Your task to perform on an android device: Open the Play Movies app and select the watchlist tab. Image 0: 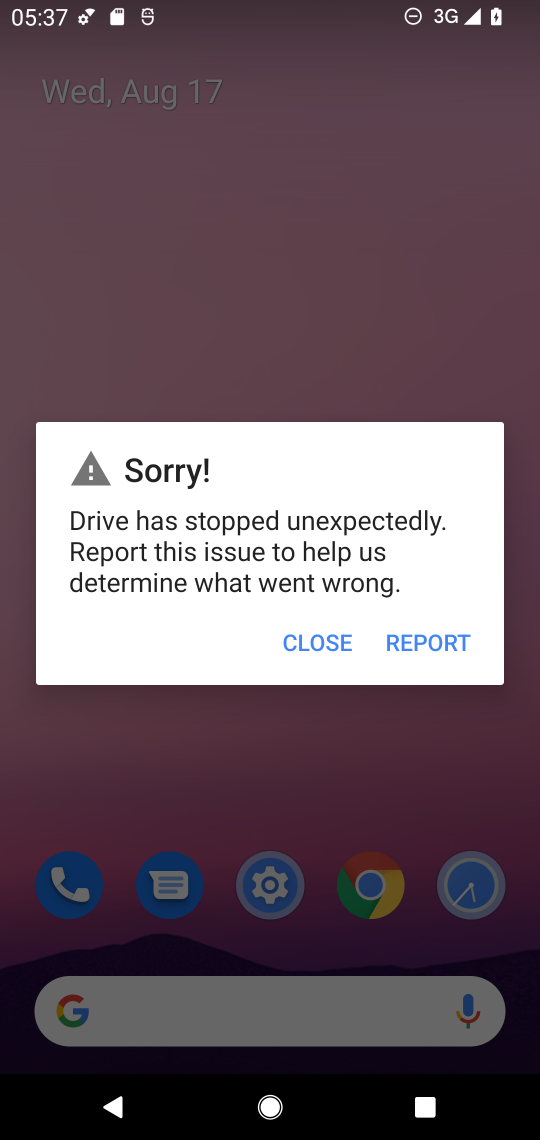
Step 0: press home button
Your task to perform on an android device: Open the Play Movies app and select the watchlist tab. Image 1: 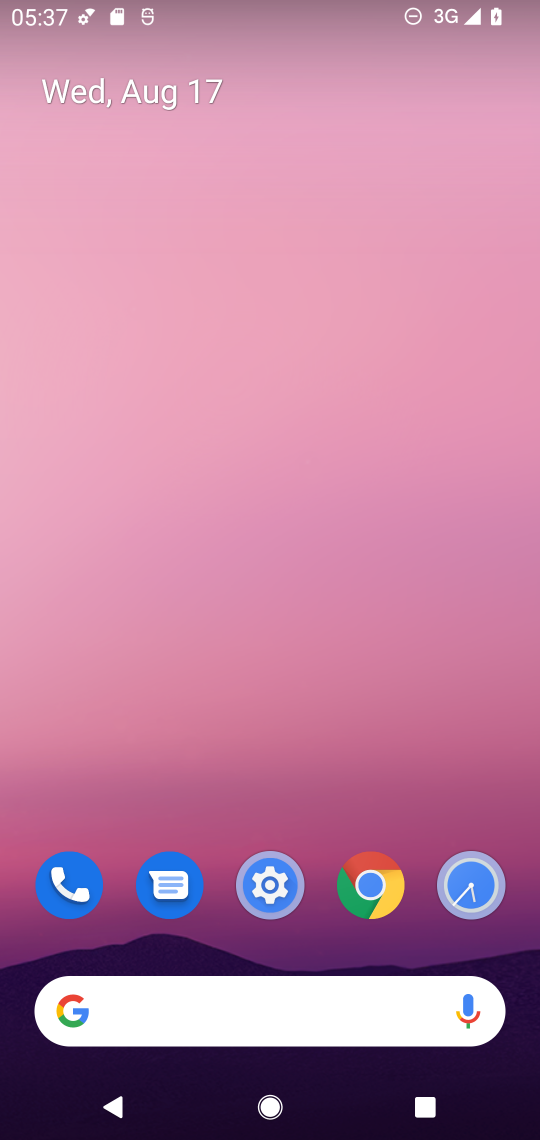
Step 1: drag from (337, 761) to (396, 14)
Your task to perform on an android device: Open the Play Movies app and select the watchlist tab. Image 2: 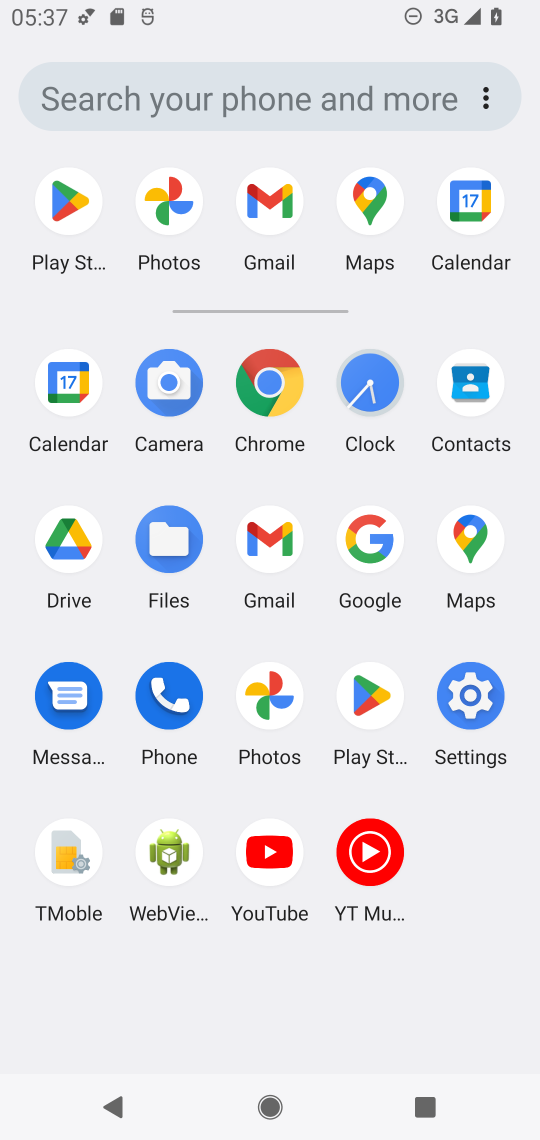
Step 2: click (357, 689)
Your task to perform on an android device: Open the Play Movies app and select the watchlist tab. Image 3: 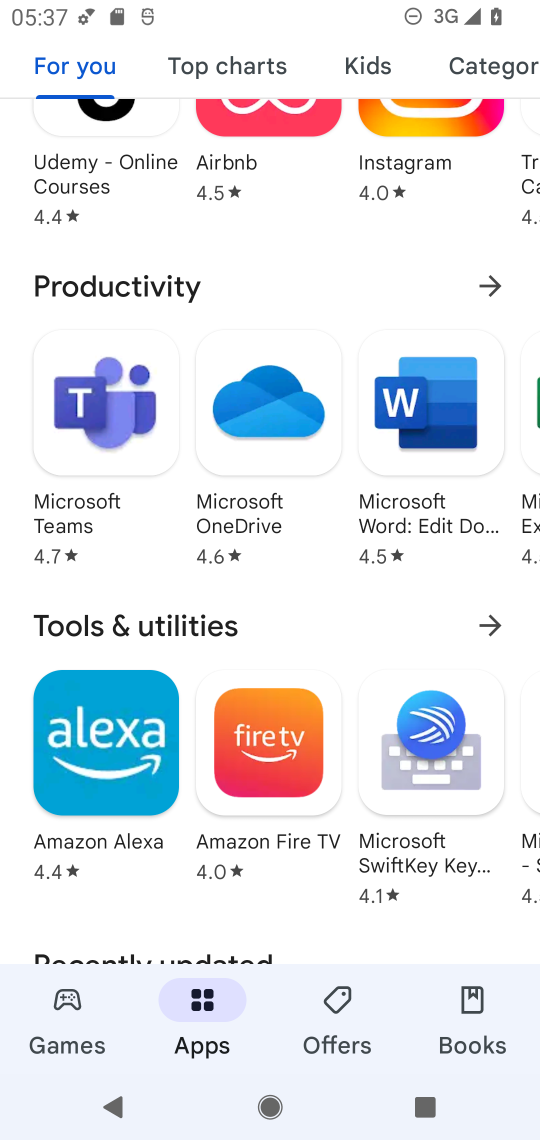
Step 3: drag from (306, 237) to (382, 1023)
Your task to perform on an android device: Open the Play Movies app and select the watchlist tab. Image 4: 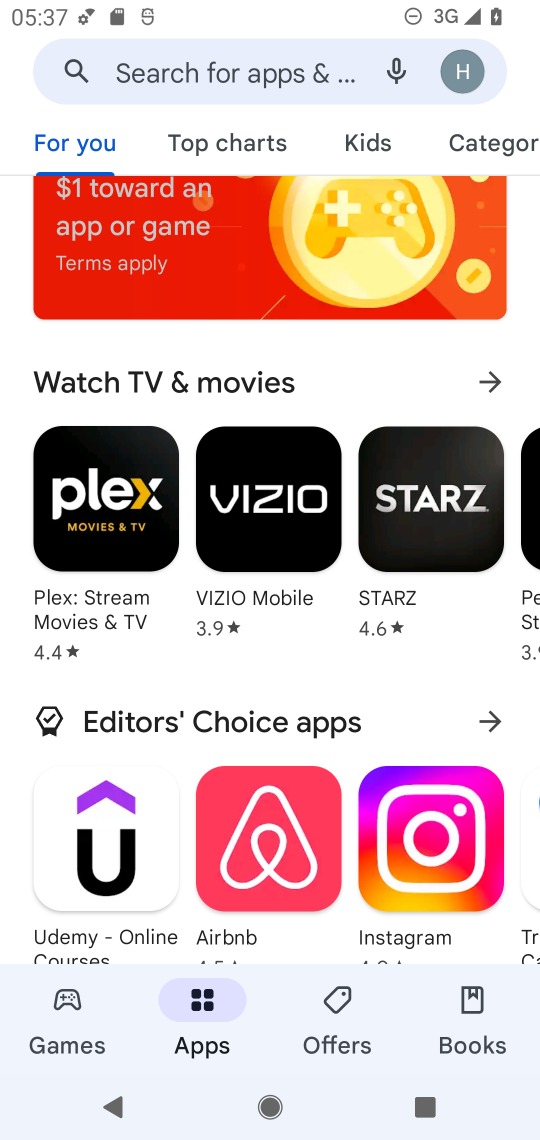
Step 4: click (248, 61)
Your task to perform on an android device: Open the Play Movies app and select the watchlist tab. Image 5: 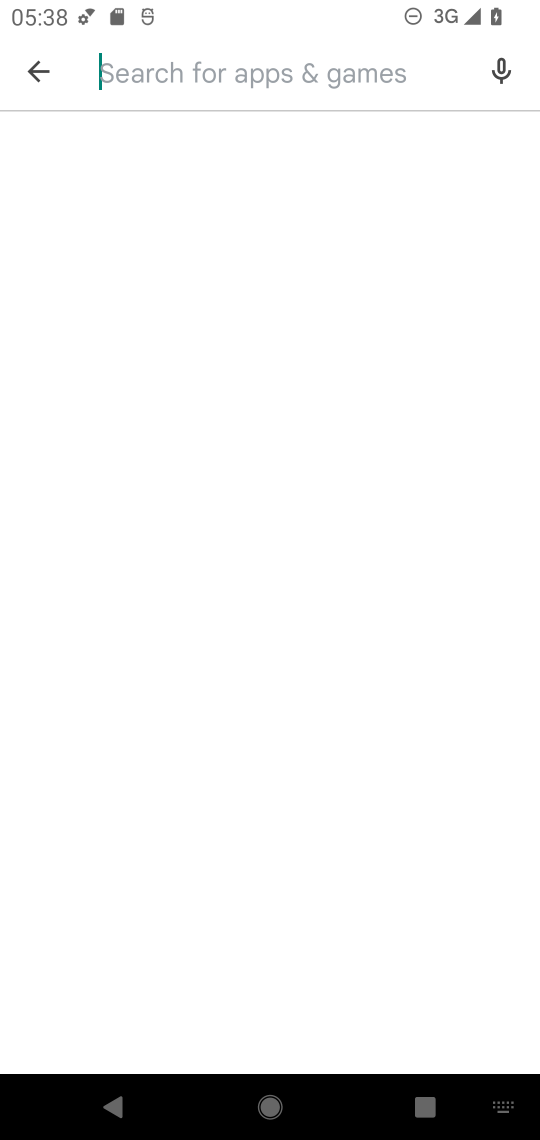
Step 5: type "Play Movies"
Your task to perform on an android device: Open the Play Movies app and select the watchlist tab. Image 6: 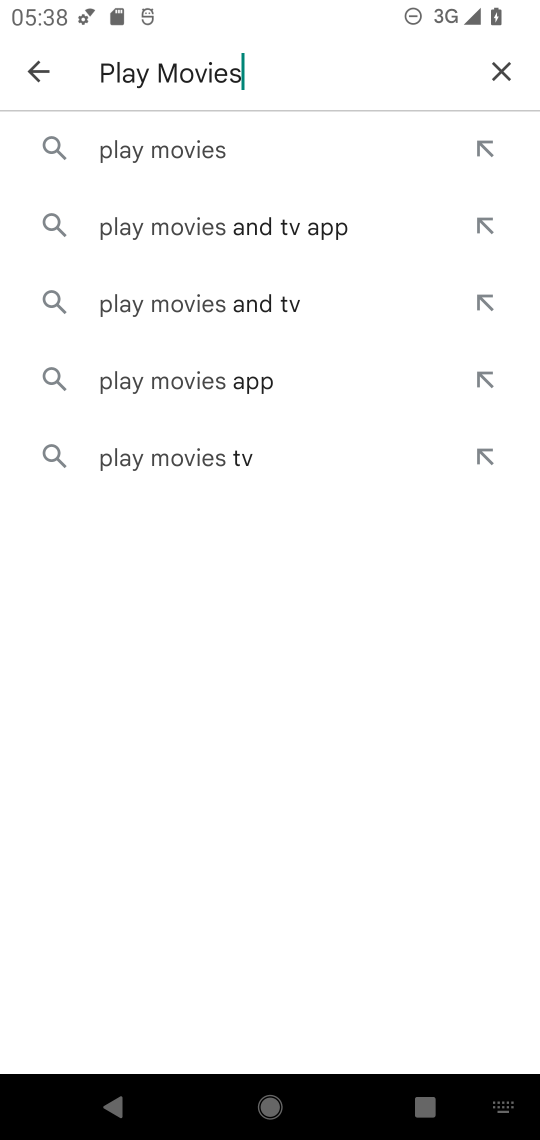
Step 6: click (172, 149)
Your task to perform on an android device: Open the Play Movies app and select the watchlist tab. Image 7: 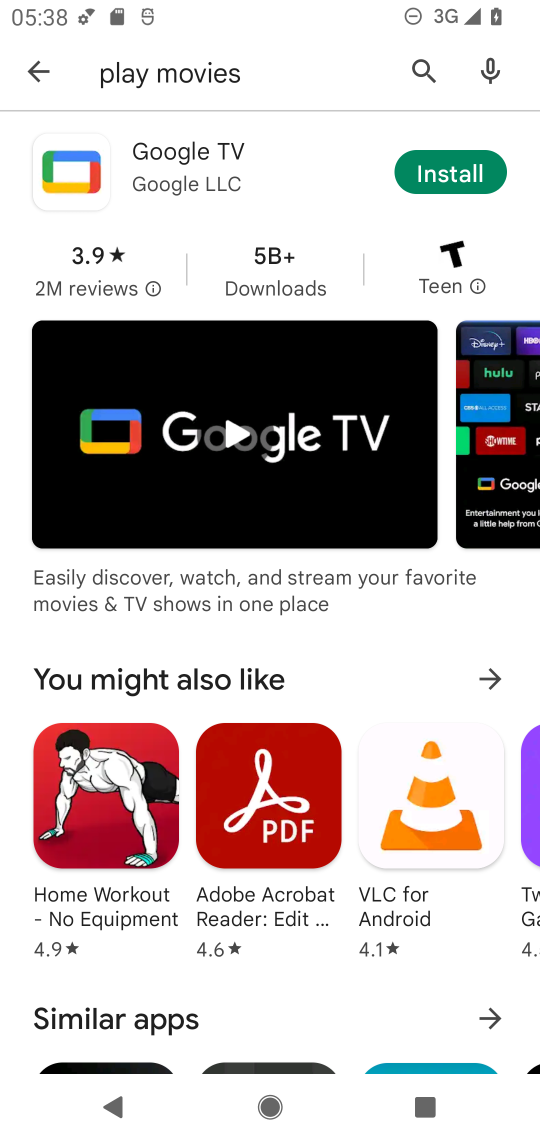
Step 7: task complete